Your task to perform on an android device: manage bookmarks in the chrome app Image 0: 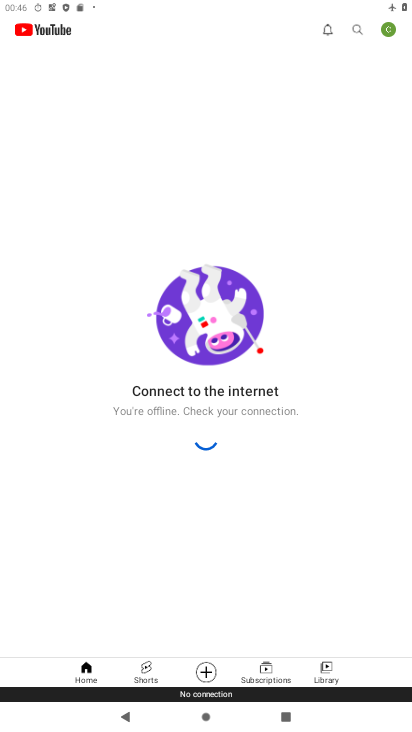
Step 0: press home button
Your task to perform on an android device: manage bookmarks in the chrome app Image 1: 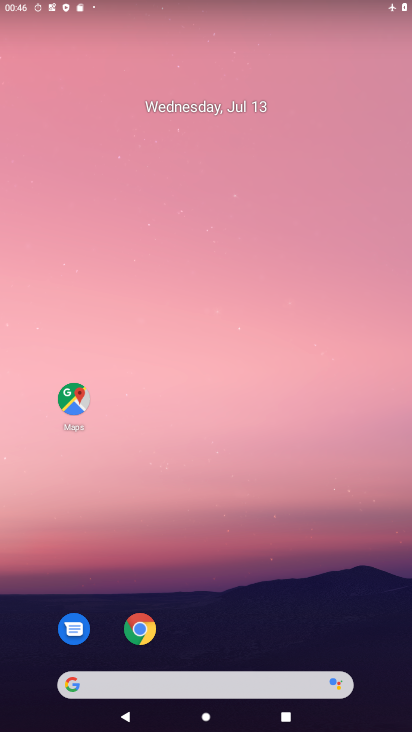
Step 1: click (136, 637)
Your task to perform on an android device: manage bookmarks in the chrome app Image 2: 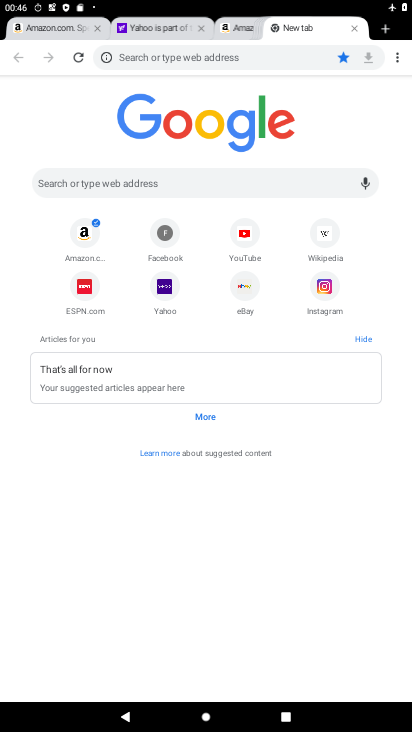
Step 2: click (393, 57)
Your task to perform on an android device: manage bookmarks in the chrome app Image 3: 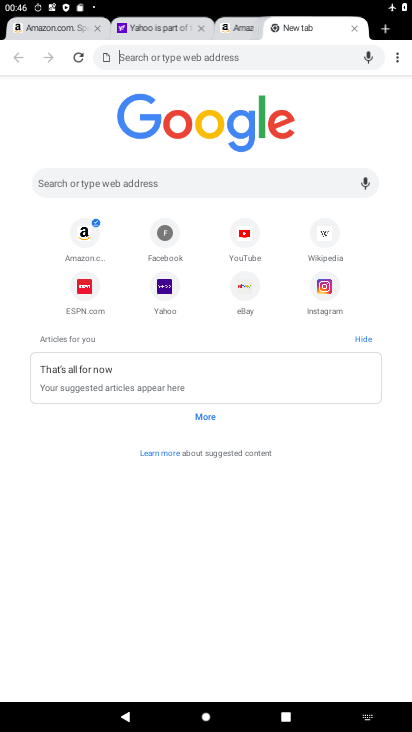
Step 3: click (397, 61)
Your task to perform on an android device: manage bookmarks in the chrome app Image 4: 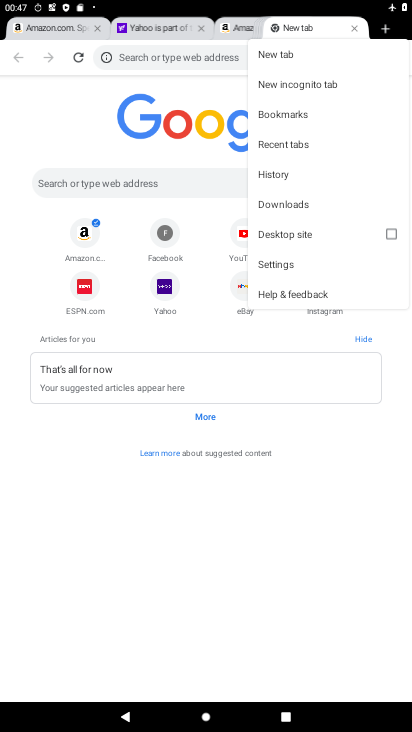
Step 4: click (316, 118)
Your task to perform on an android device: manage bookmarks in the chrome app Image 5: 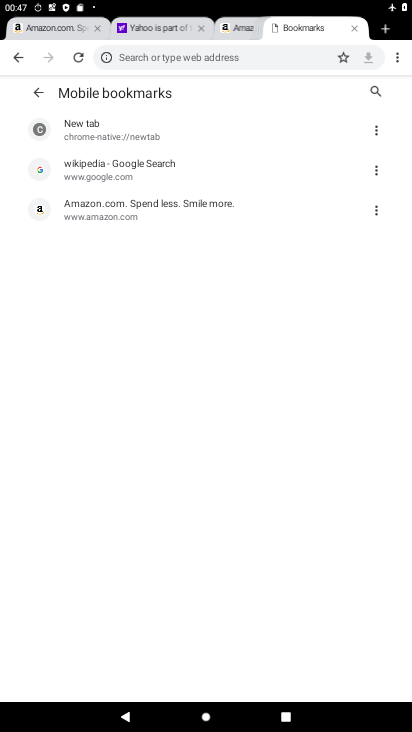
Step 5: click (370, 205)
Your task to perform on an android device: manage bookmarks in the chrome app Image 6: 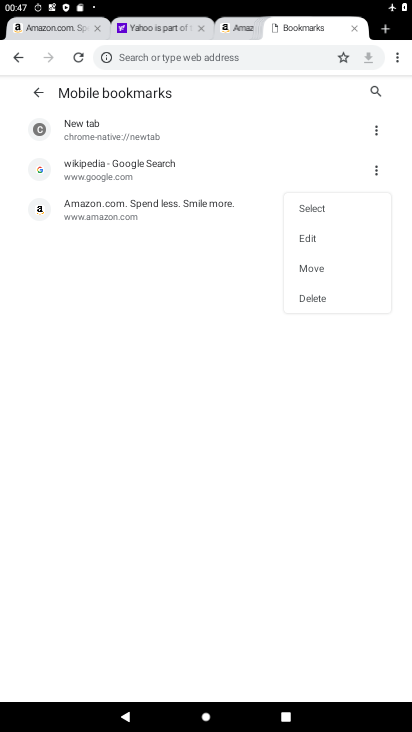
Step 6: click (326, 295)
Your task to perform on an android device: manage bookmarks in the chrome app Image 7: 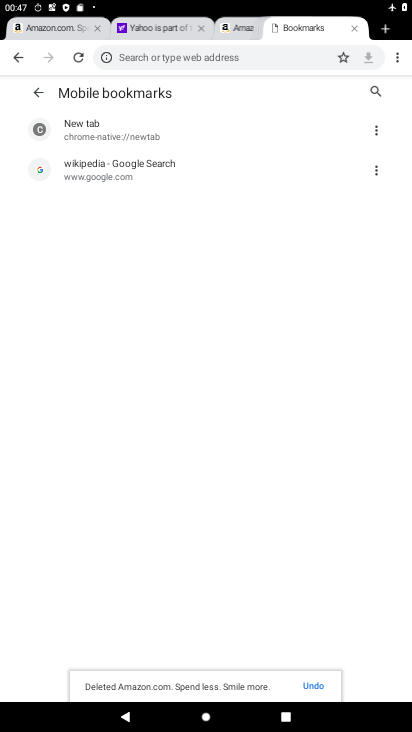
Step 7: task complete